Your task to perform on an android device: stop showing notifications on the lock screen Image 0: 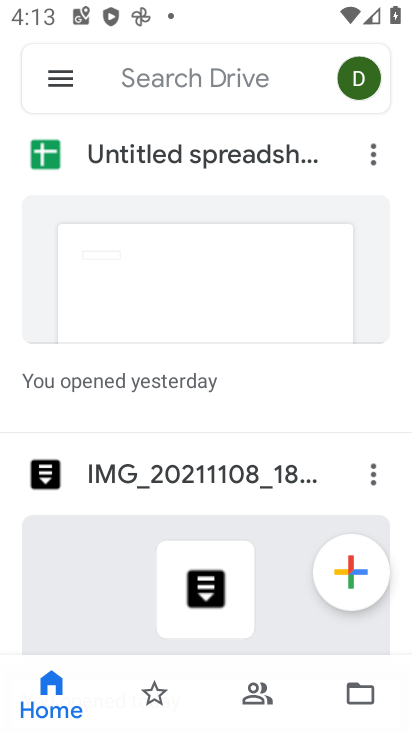
Step 0: press home button
Your task to perform on an android device: stop showing notifications on the lock screen Image 1: 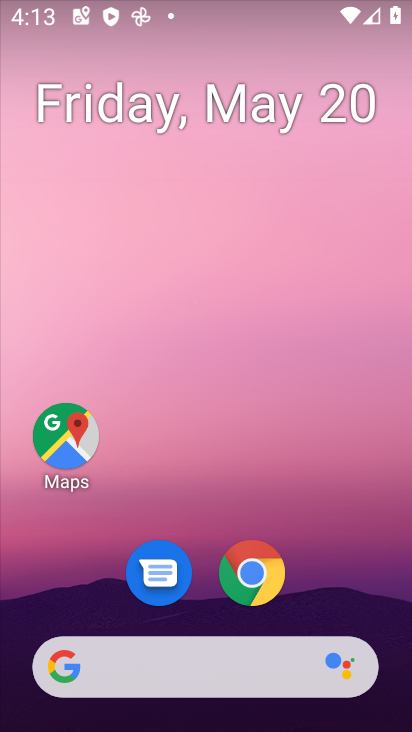
Step 1: drag from (384, 633) to (346, 103)
Your task to perform on an android device: stop showing notifications on the lock screen Image 2: 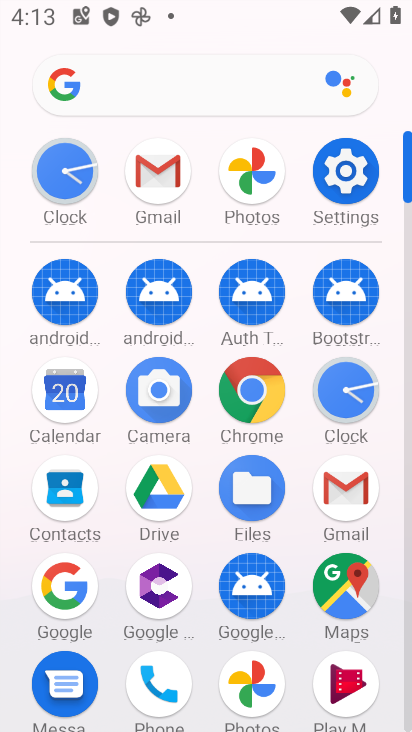
Step 2: click (410, 690)
Your task to perform on an android device: stop showing notifications on the lock screen Image 3: 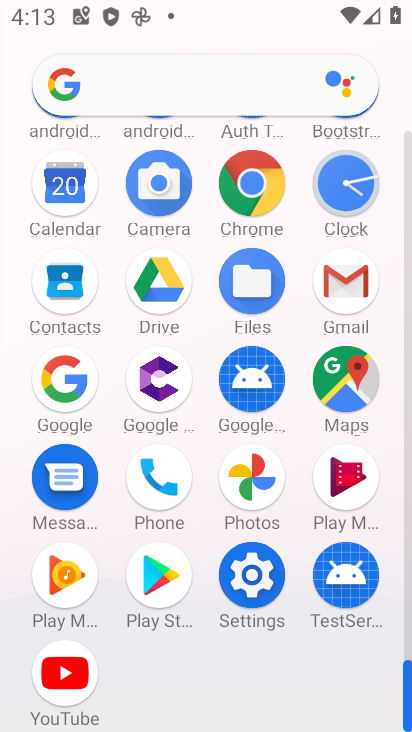
Step 3: click (252, 574)
Your task to perform on an android device: stop showing notifications on the lock screen Image 4: 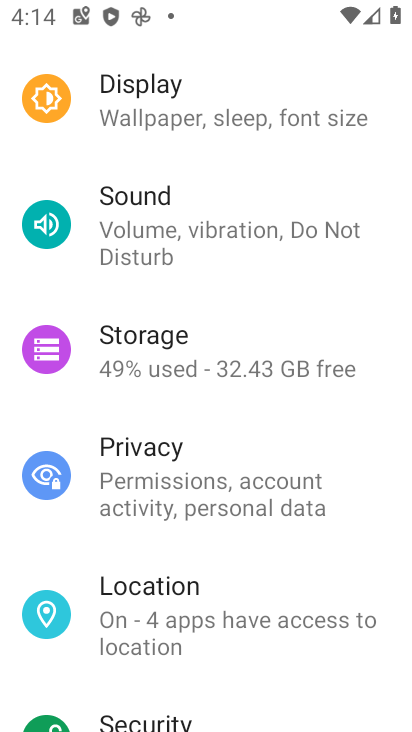
Step 4: drag from (232, 89) to (308, 520)
Your task to perform on an android device: stop showing notifications on the lock screen Image 5: 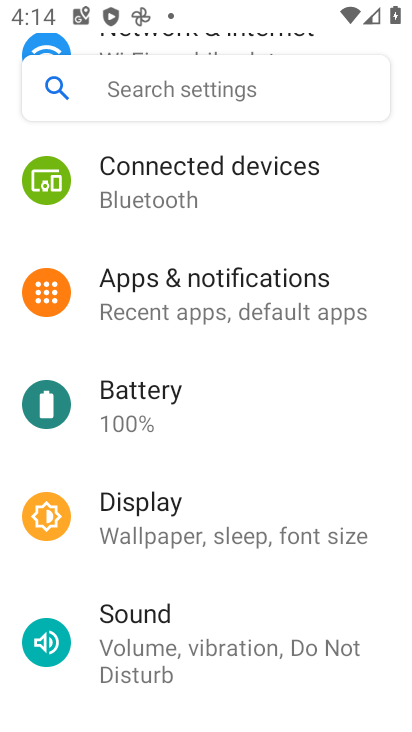
Step 5: click (186, 282)
Your task to perform on an android device: stop showing notifications on the lock screen Image 6: 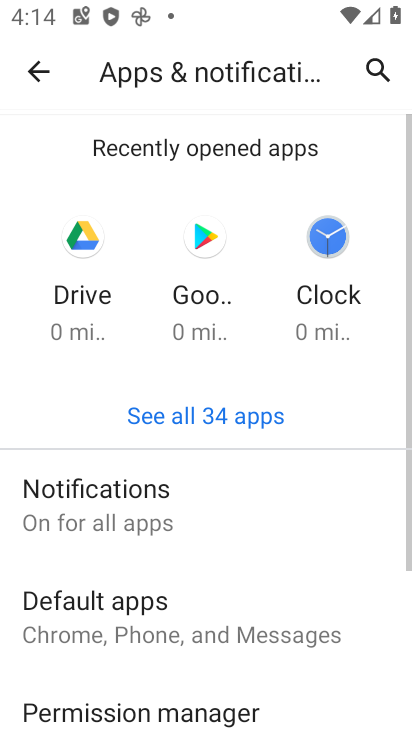
Step 6: click (115, 500)
Your task to perform on an android device: stop showing notifications on the lock screen Image 7: 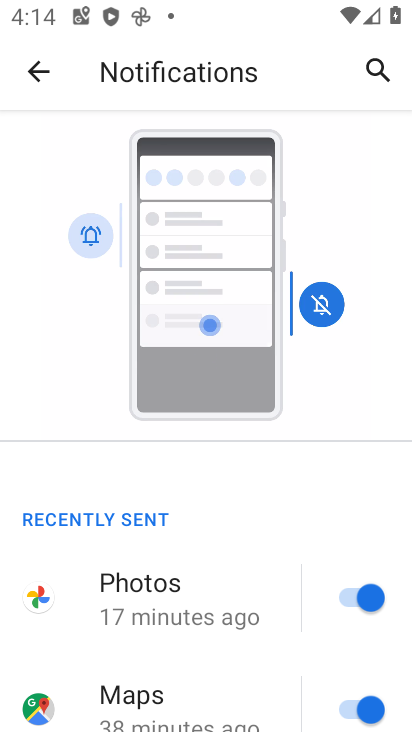
Step 7: drag from (302, 698) to (215, 63)
Your task to perform on an android device: stop showing notifications on the lock screen Image 8: 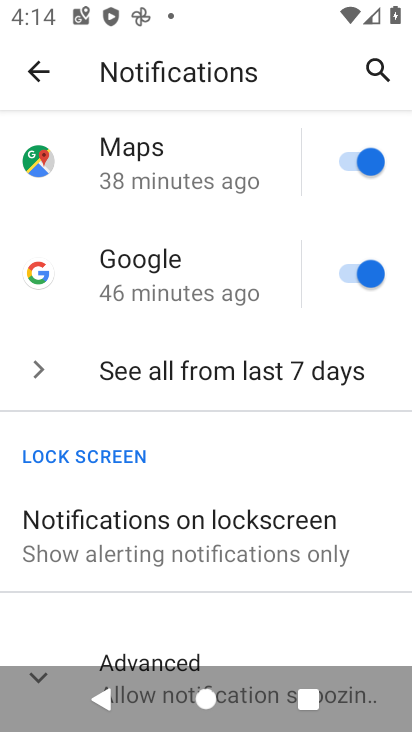
Step 8: click (192, 541)
Your task to perform on an android device: stop showing notifications on the lock screen Image 9: 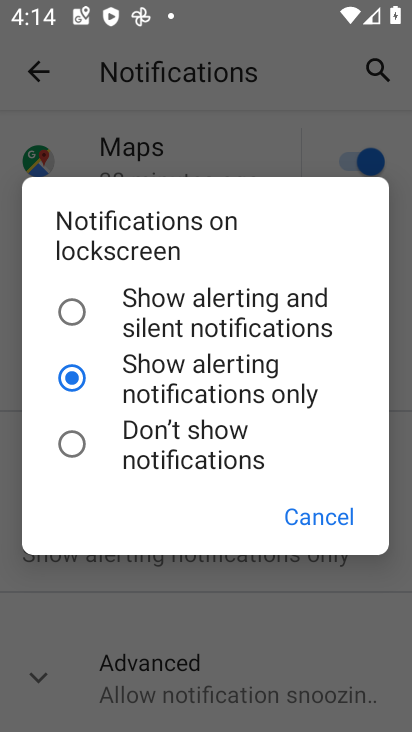
Step 9: click (70, 451)
Your task to perform on an android device: stop showing notifications on the lock screen Image 10: 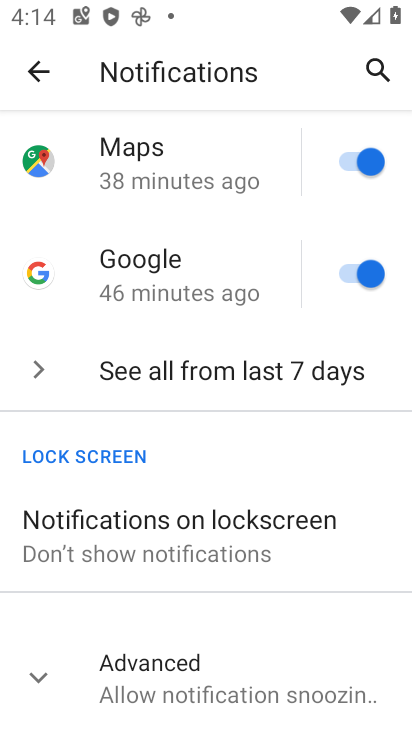
Step 10: task complete